Your task to perform on an android device: turn off notifications settings in the gmail app Image 0: 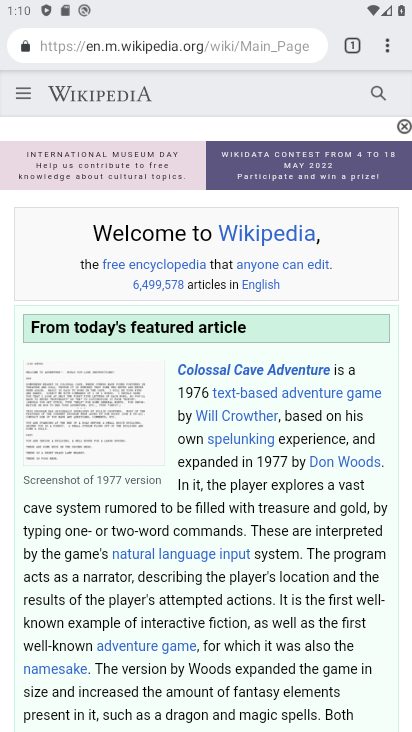
Step 0: press back button
Your task to perform on an android device: turn off notifications settings in the gmail app Image 1: 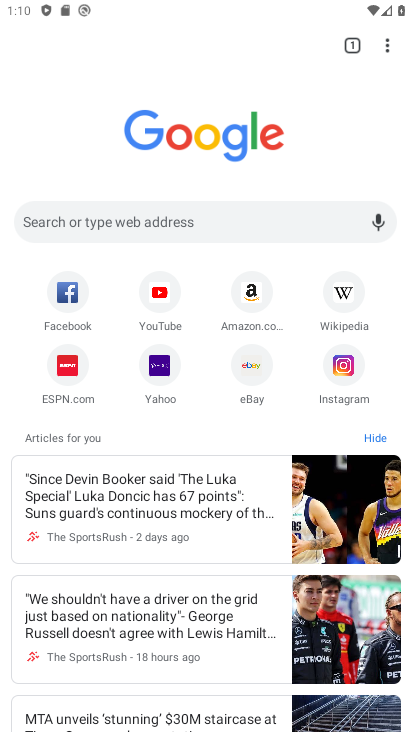
Step 1: press back button
Your task to perform on an android device: turn off notifications settings in the gmail app Image 2: 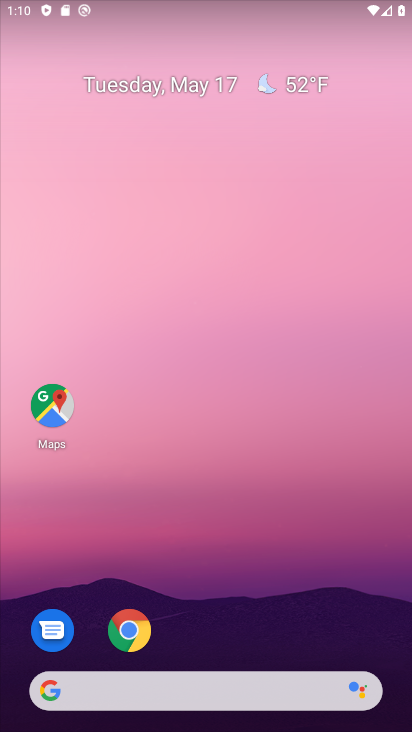
Step 2: drag from (186, 613) to (277, 56)
Your task to perform on an android device: turn off notifications settings in the gmail app Image 3: 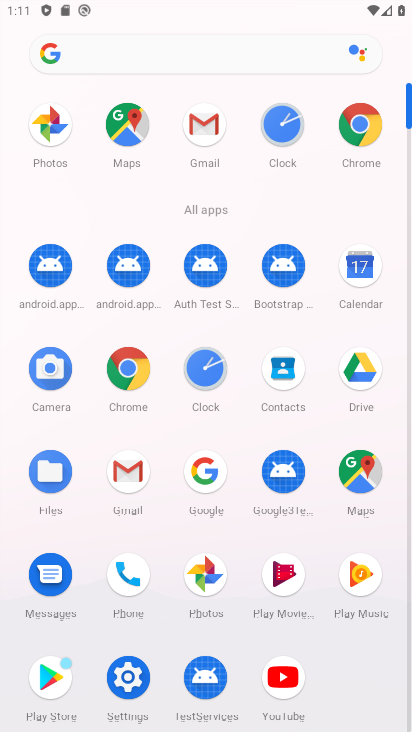
Step 3: click (120, 470)
Your task to perform on an android device: turn off notifications settings in the gmail app Image 4: 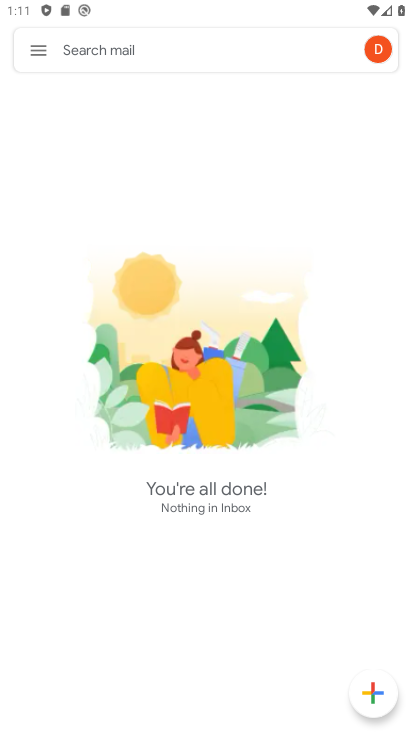
Step 4: click (41, 51)
Your task to perform on an android device: turn off notifications settings in the gmail app Image 5: 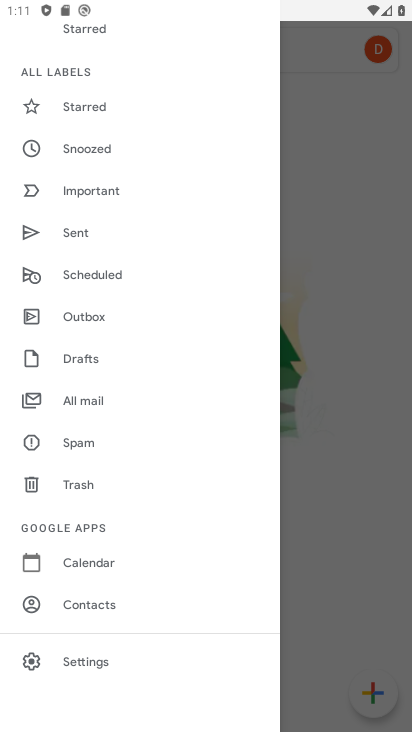
Step 5: click (86, 669)
Your task to perform on an android device: turn off notifications settings in the gmail app Image 6: 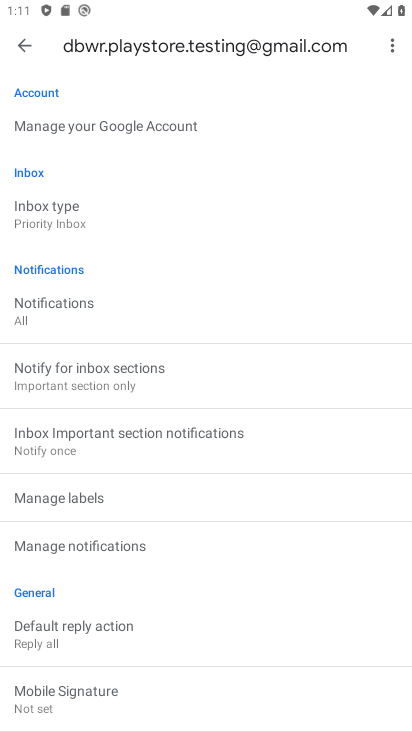
Step 6: click (76, 560)
Your task to perform on an android device: turn off notifications settings in the gmail app Image 7: 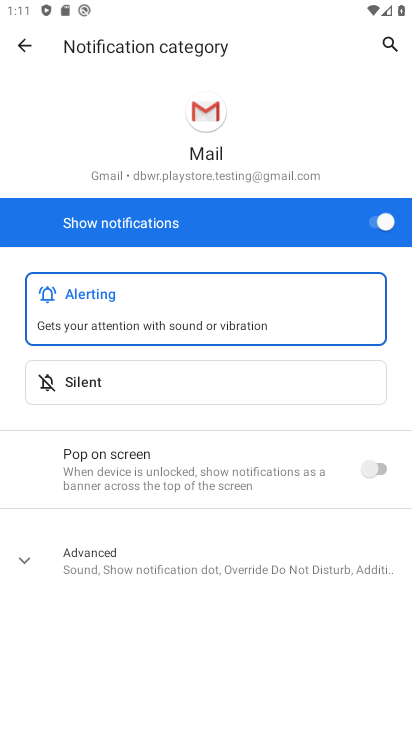
Step 7: click (378, 222)
Your task to perform on an android device: turn off notifications settings in the gmail app Image 8: 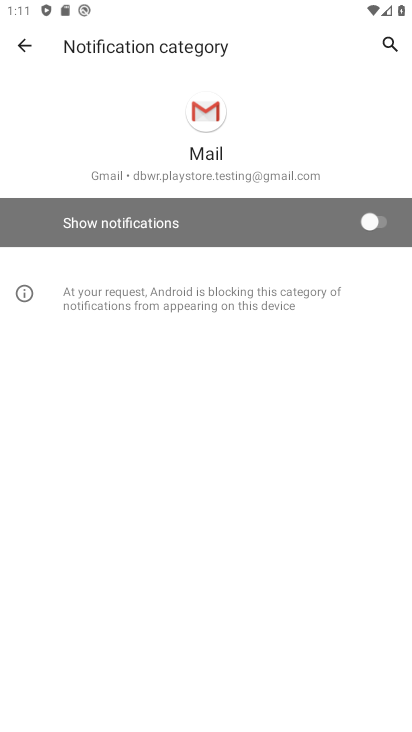
Step 8: task complete